Your task to perform on an android device: Search for a 36" x 48" whiteboard on Home Depot Image 0: 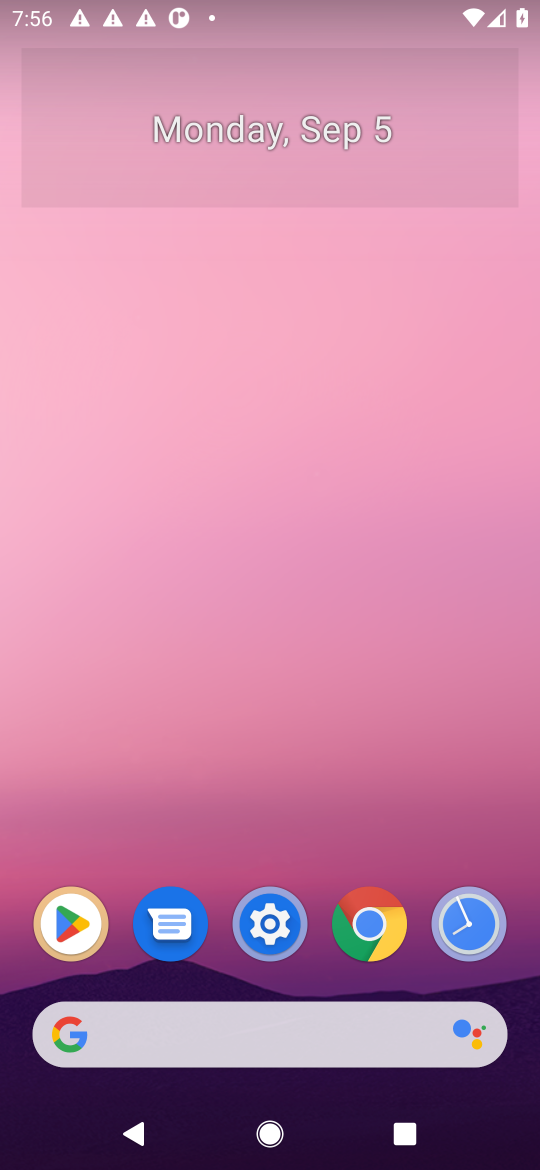
Step 0: click (357, 1041)
Your task to perform on an android device: Search for a 36" x 48" whiteboard on Home Depot Image 1: 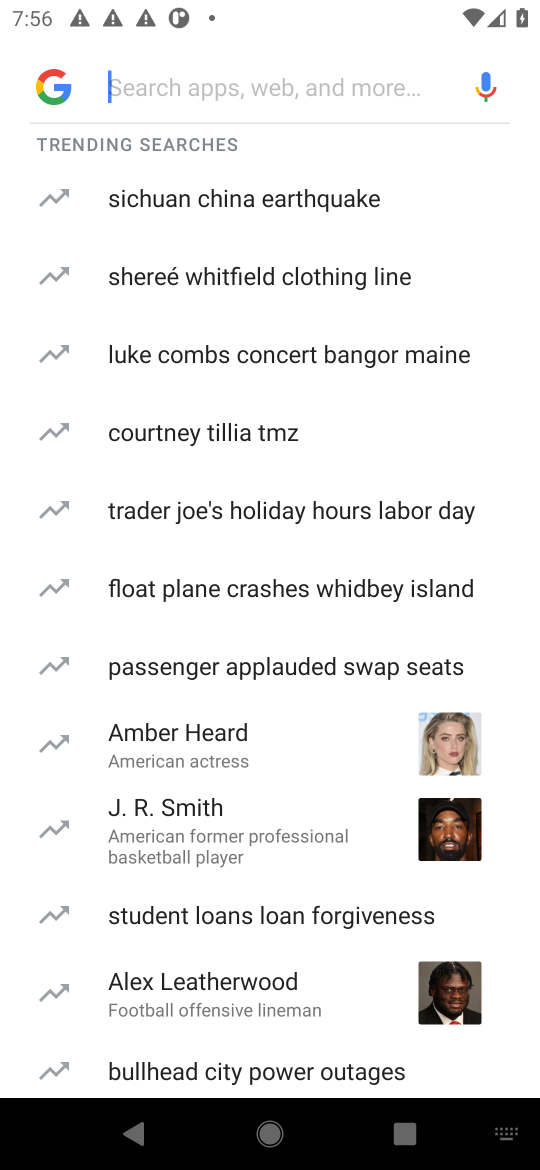
Step 1: click (269, 89)
Your task to perform on an android device: Search for a 36" x 48" whiteboard on Home Depot Image 2: 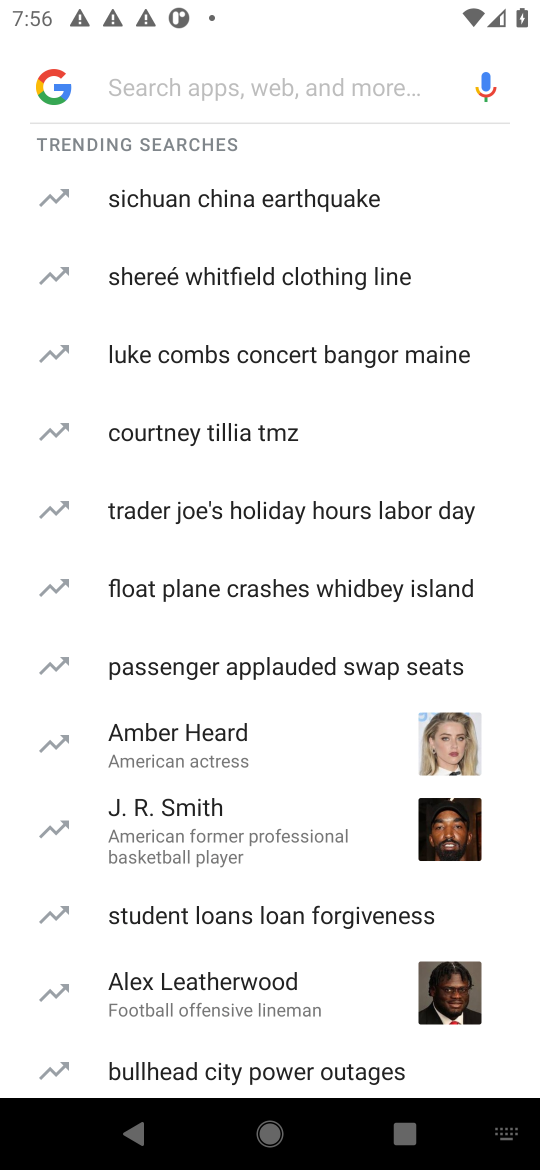
Step 2: press enter
Your task to perform on an android device: Search for a 36" x 48" whiteboard on Home Depot Image 3: 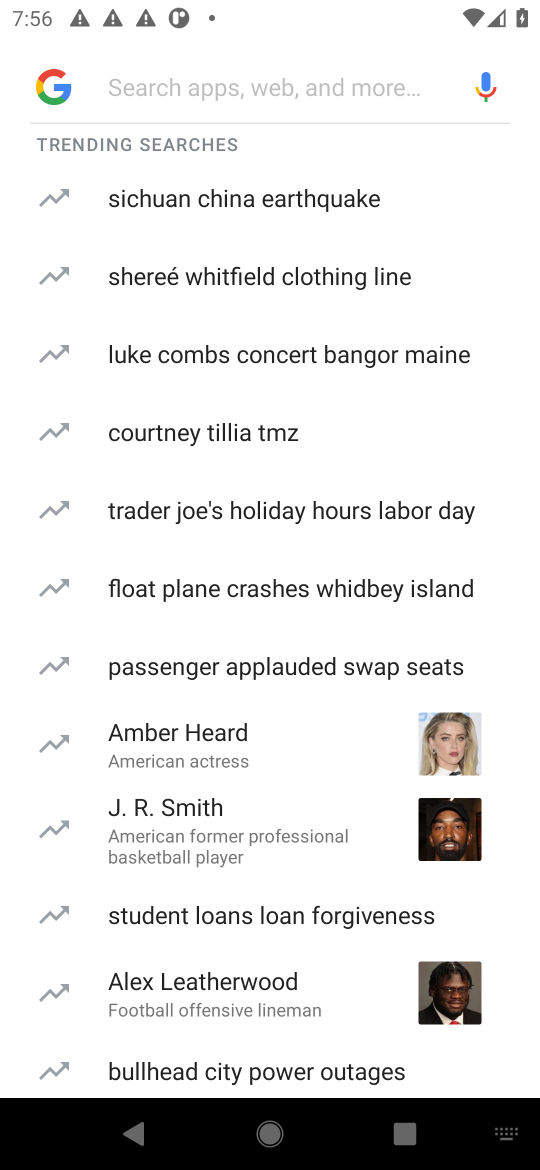
Step 3: type "home depot"
Your task to perform on an android device: Search for a 36" x 48" whiteboard on Home Depot Image 4: 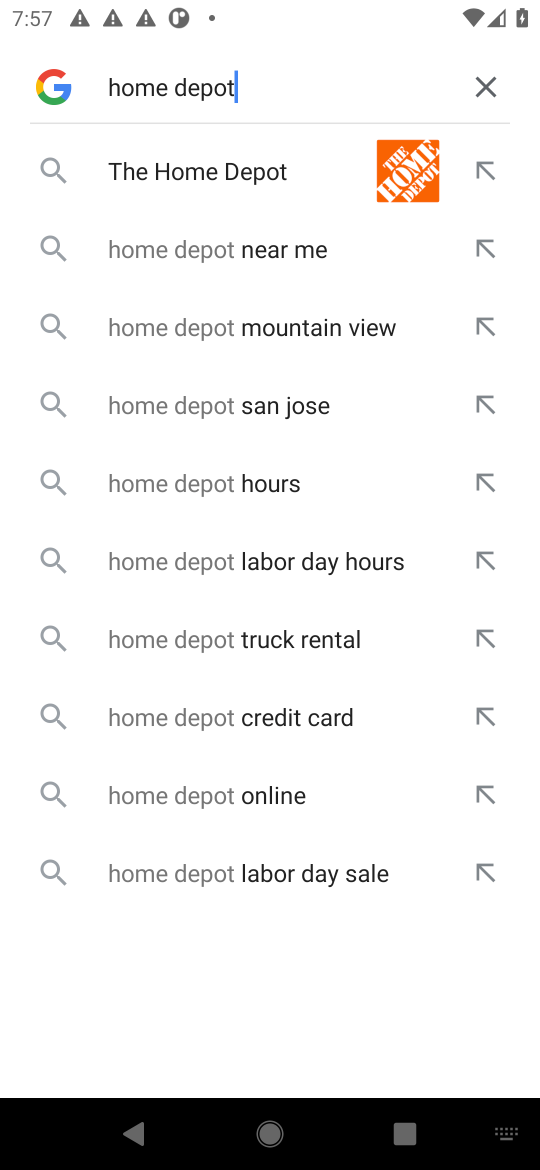
Step 4: click (175, 173)
Your task to perform on an android device: Search for a 36" x 48" whiteboard on Home Depot Image 5: 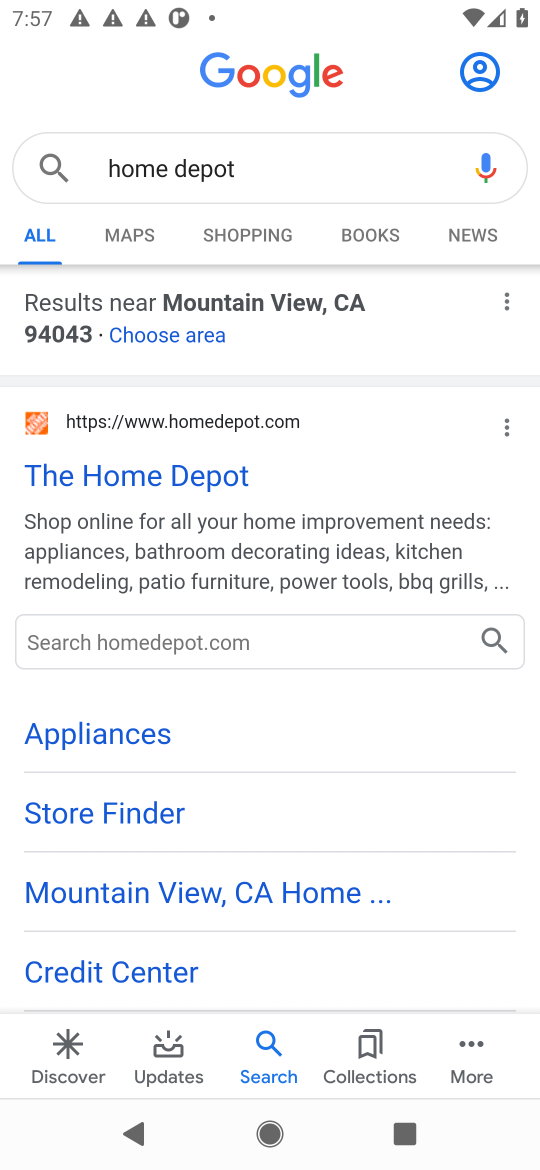
Step 5: click (194, 481)
Your task to perform on an android device: Search for a 36" x 48" whiteboard on Home Depot Image 6: 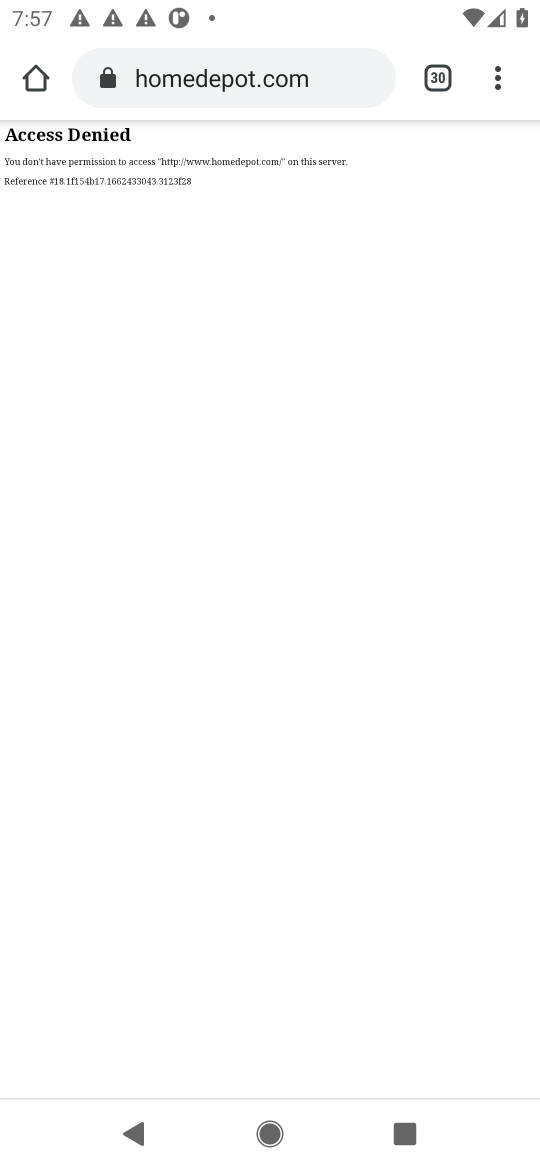
Step 6: task complete